Your task to perform on an android device: turn off javascript in the chrome app Image 0: 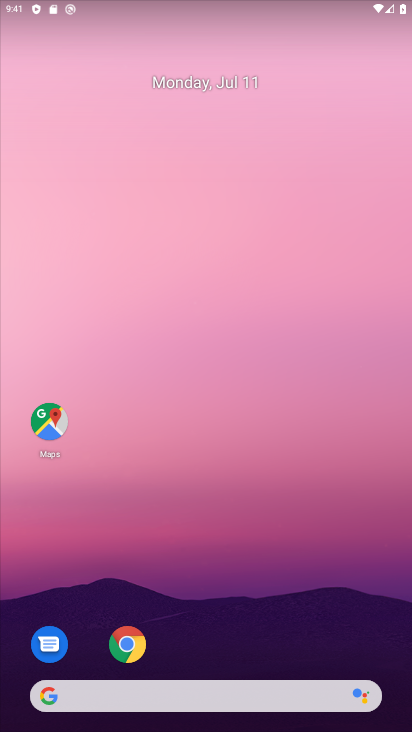
Step 0: click (129, 651)
Your task to perform on an android device: turn off javascript in the chrome app Image 1: 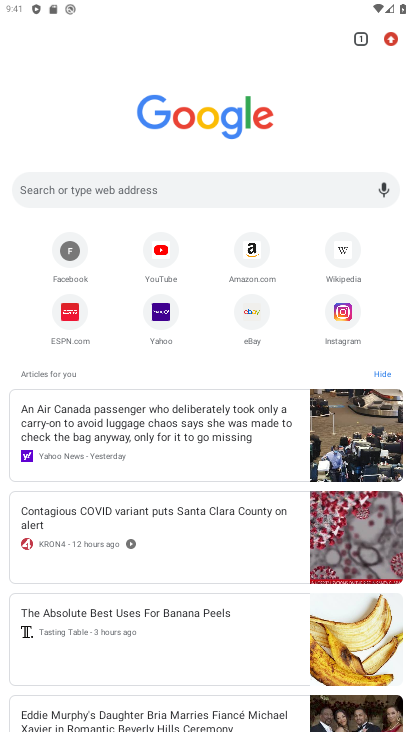
Step 1: click (390, 38)
Your task to perform on an android device: turn off javascript in the chrome app Image 2: 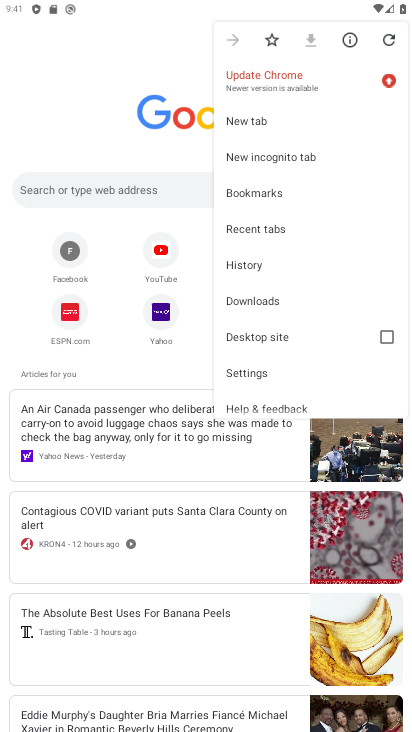
Step 2: click (270, 375)
Your task to perform on an android device: turn off javascript in the chrome app Image 3: 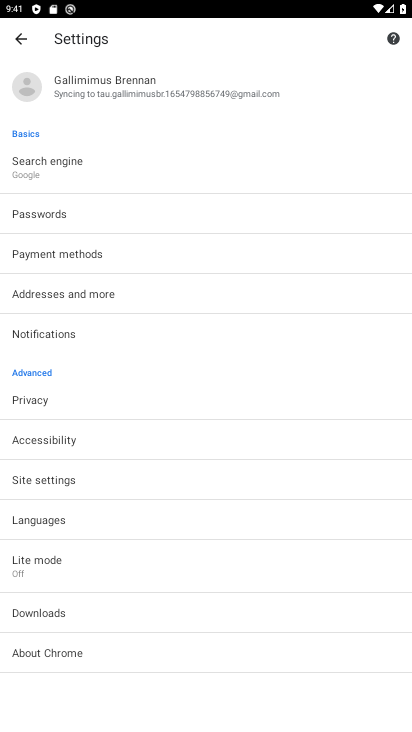
Step 3: click (98, 475)
Your task to perform on an android device: turn off javascript in the chrome app Image 4: 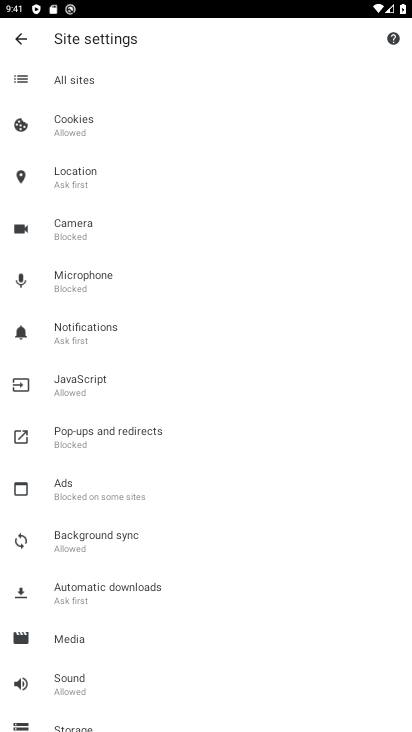
Step 4: click (91, 390)
Your task to perform on an android device: turn off javascript in the chrome app Image 5: 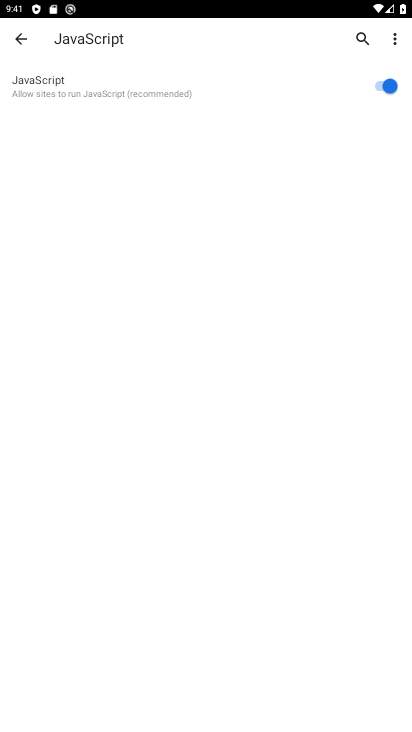
Step 5: click (374, 92)
Your task to perform on an android device: turn off javascript in the chrome app Image 6: 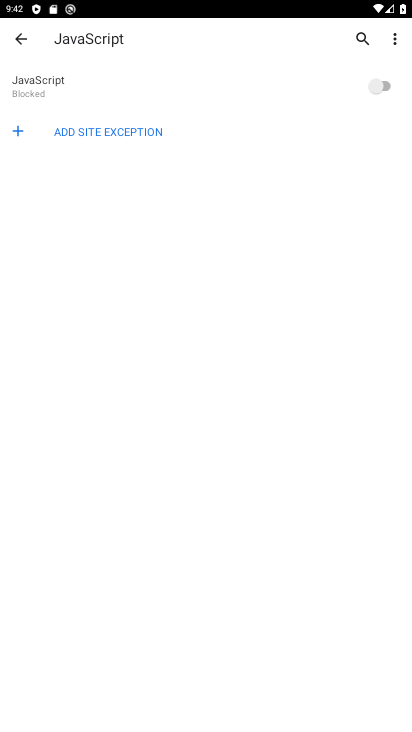
Step 6: task complete